Your task to perform on an android device: Open notification settings Image 0: 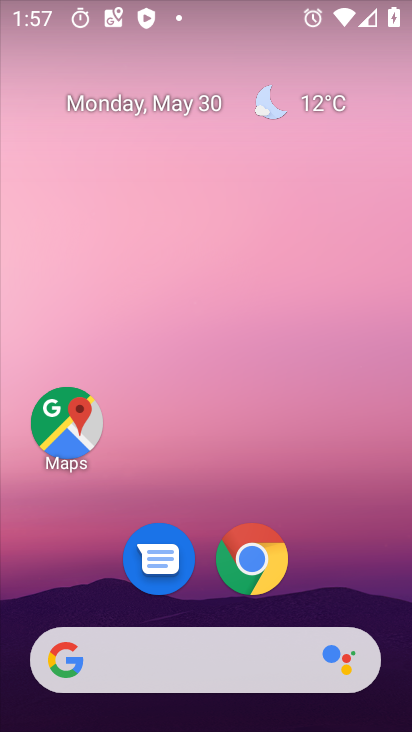
Step 0: drag from (194, 497) to (278, 41)
Your task to perform on an android device: Open notification settings Image 1: 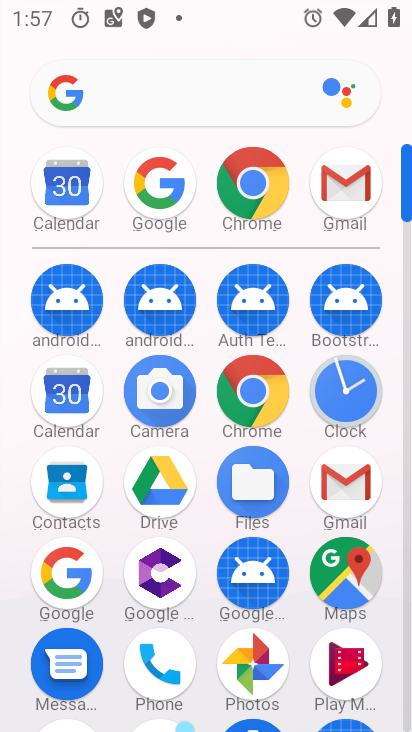
Step 1: drag from (217, 612) to (288, 207)
Your task to perform on an android device: Open notification settings Image 2: 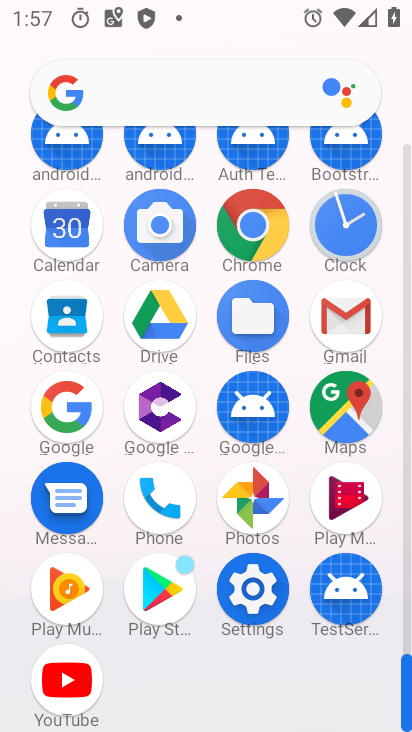
Step 2: click (247, 586)
Your task to perform on an android device: Open notification settings Image 3: 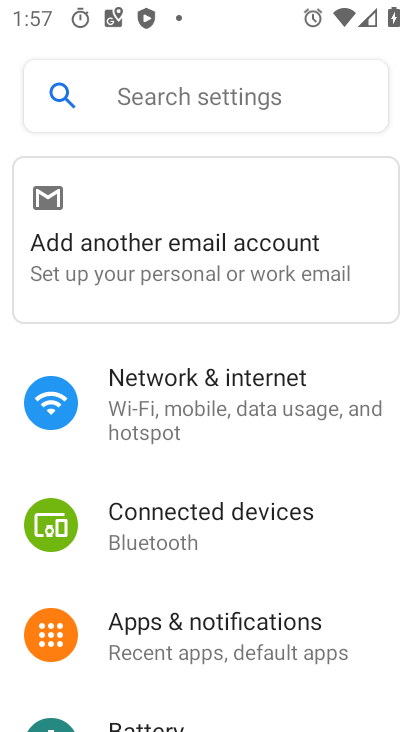
Step 3: click (217, 624)
Your task to perform on an android device: Open notification settings Image 4: 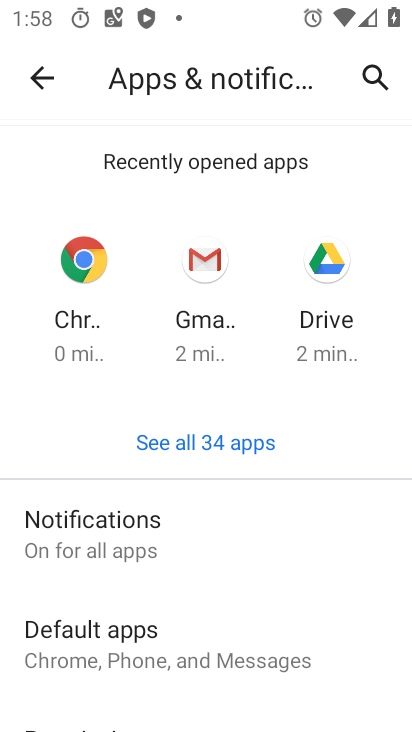
Step 4: task complete